Your task to perform on an android device: turn notification dots off Image 0: 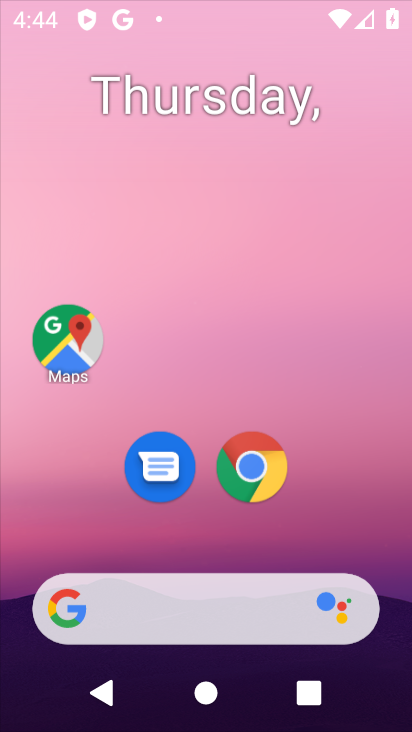
Step 0: click (273, 472)
Your task to perform on an android device: turn notification dots off Image 1: 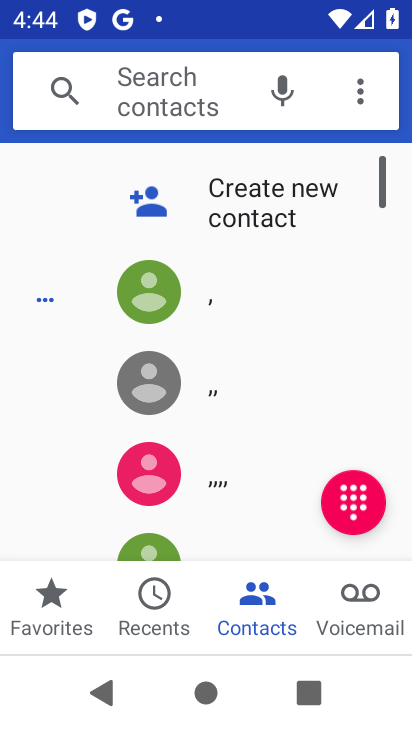
Step 1: press home button
Your task to perform on an android device: turn notification dots off Image 2: 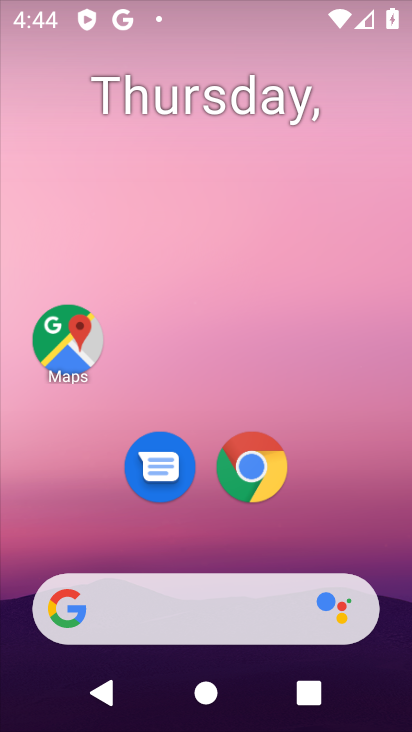
Step 2: drag from (365, 492) to (409, 56)
Your task to perform on an android device: turn notification dots off Image 3: 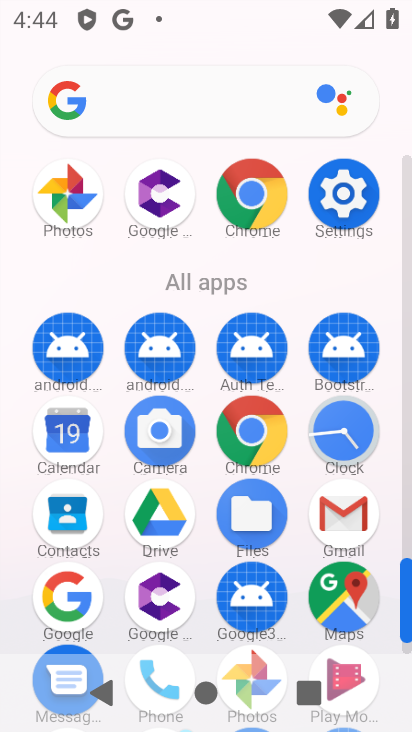
Step 3: click (311, 202)
Your task to perform on an android device: turn notification dots off Image 4: 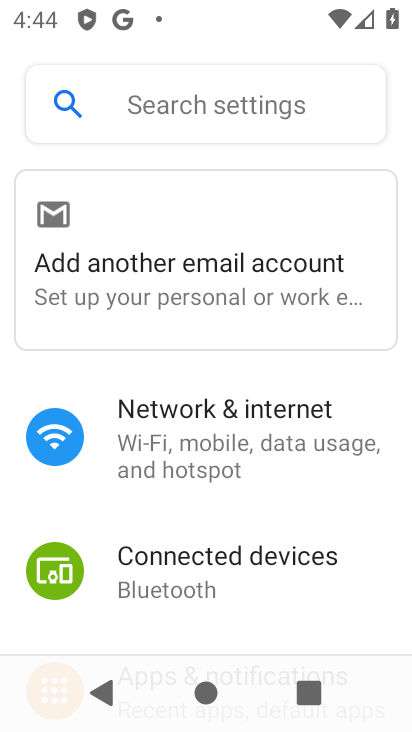
Step 4: drag from (294, 565) to (381, 201)
Your task to perform on an android device: turn notification dots off Image 5: 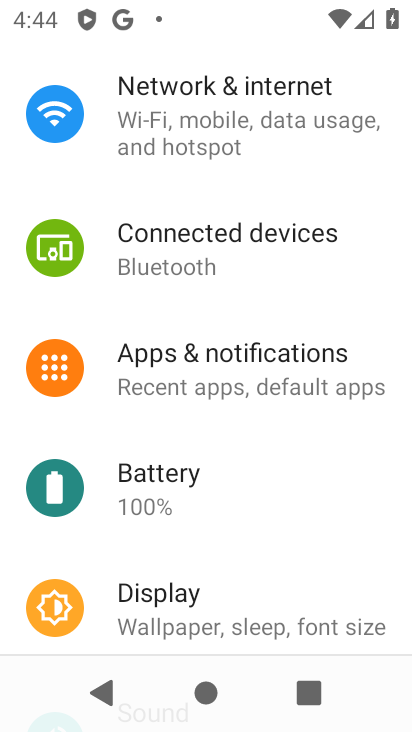
Step 5: click (295, 367)
Your task to perform on an android device: turn notification dots off Image 6: 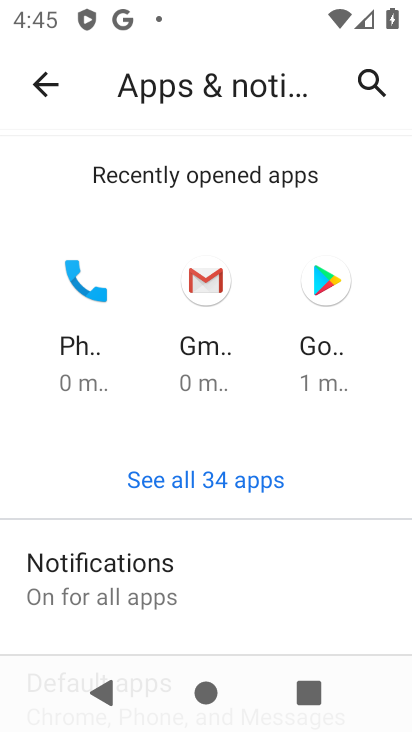
Step 6: click (148, 574)
Your task to perform on an android device: turn notification dots off Image 7: 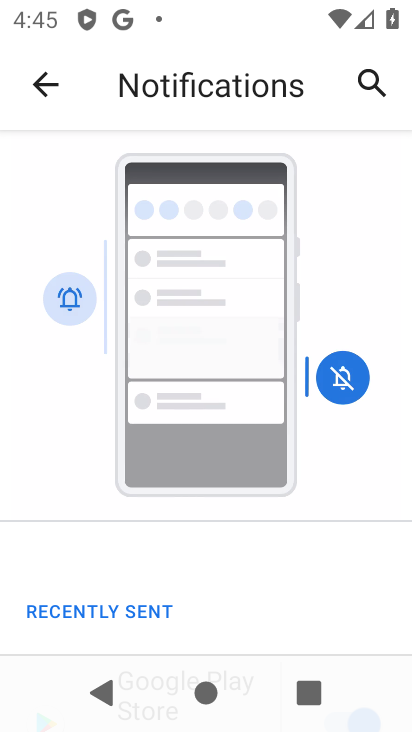
Step 7: drag from (212, 612) to (258, 153)
Your task to perform on an android device: turn notification dots off Image 8: 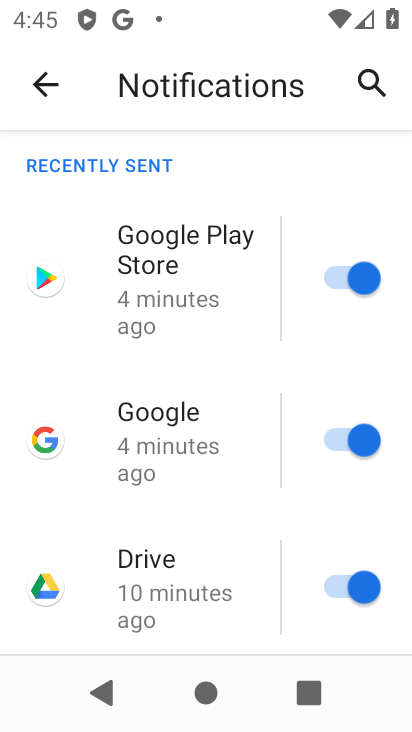
Step 8: drag from (225, 581) to (302, 128)
Your task to perform on an android device: turn notification dots off Image 9: 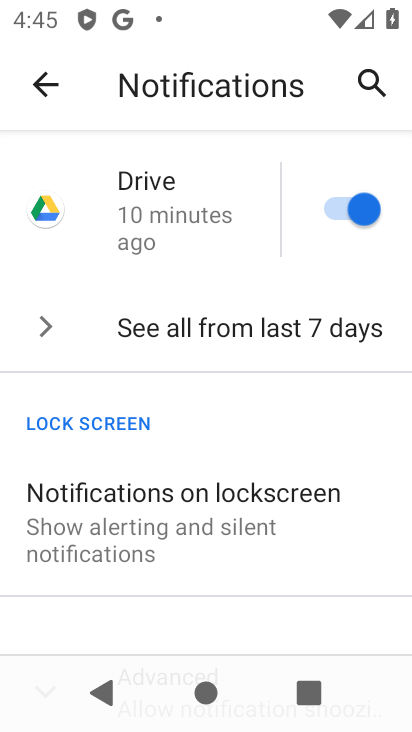
Step 9: drag from (257, 521) to (320, 266)
Your task to perform on an android device: turn notification dots off Image 10: 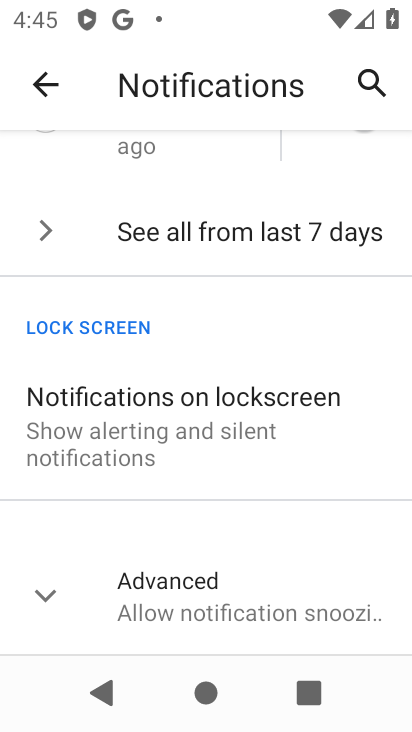
Step 10: drag from (215, 505) to (287, 283)
Your task to perform on an android device: turn notification dots off Image 11: 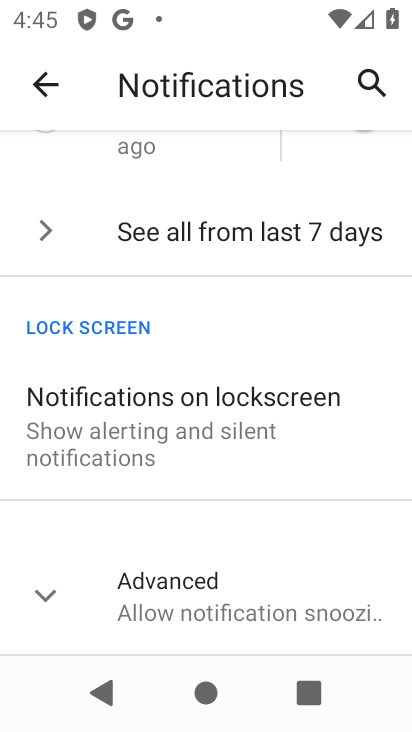
Step 11: click (201, 597)
Your task to perform on an android device: turn notification dots off Image 12: 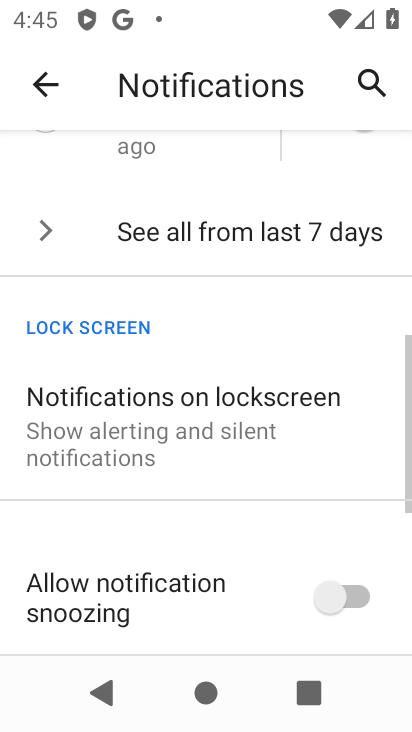
Step 12: drag from (176, 521) to (218, 188)
Your task to perform on an android device: turn notification dots off Image 13: 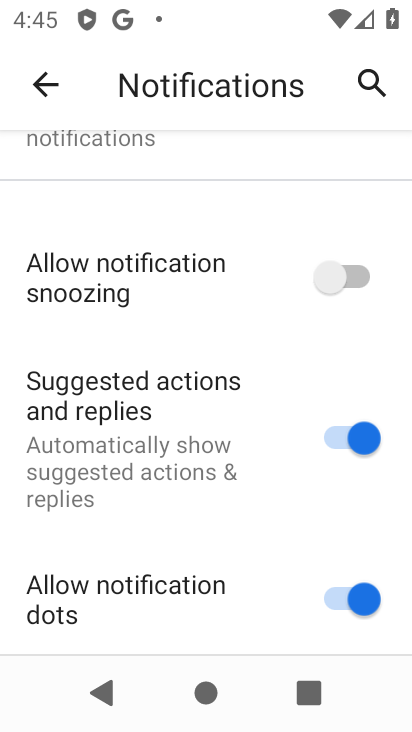
Step 13: drag from (235, 551) to (289, 307)
Your task to perform on an android device: turn notification dots off Image 14: 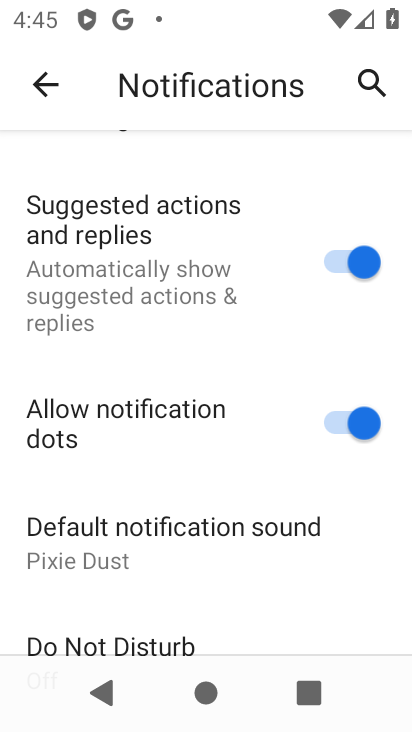
Step 14: click (335, 428)
Your task to perform on an android device: turn notification dots off Image 15: 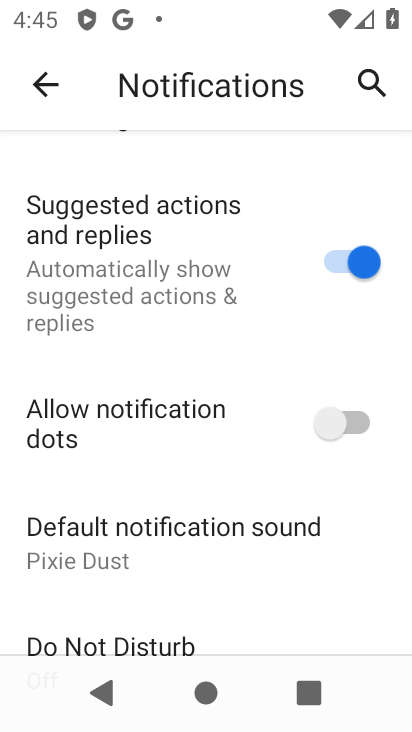
Step 15: task complete